Your task to perform on an android device: Check the weather Image 0: 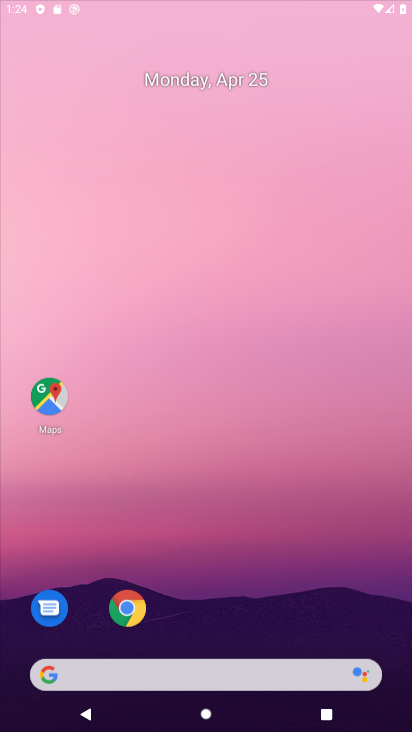
Step 0: drag from (356, 613) to (362, 332)
Your task to perform on an android device: Check the weather Image 1: 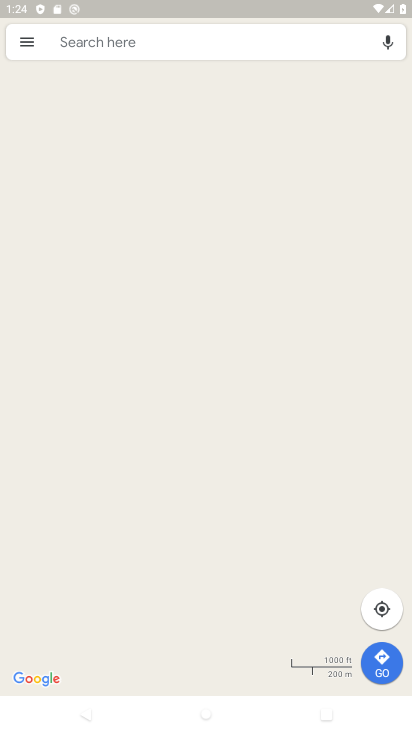
Step 1: press home button
Your task to perform on an android device: Check the weather Image 2: 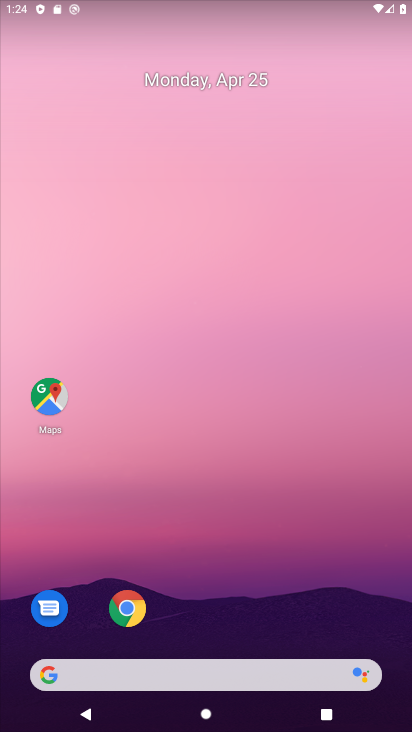
Step 2: click (236, 672)
Your task to perform on an android device: Check the weather Image 3: 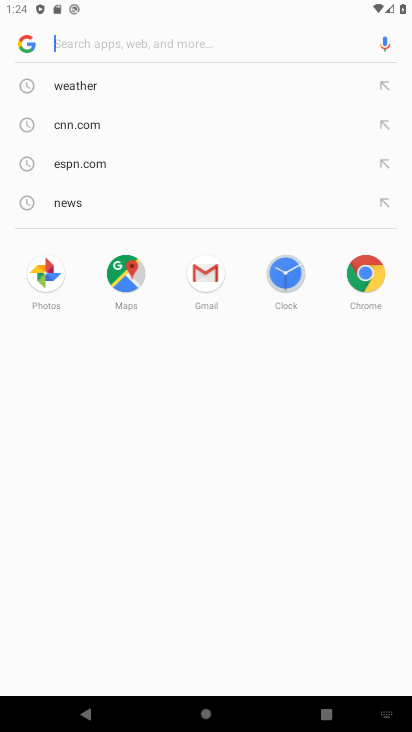
Step 3: click (97, 83)
Your task to perform on an android device: Check the weather Image 4: 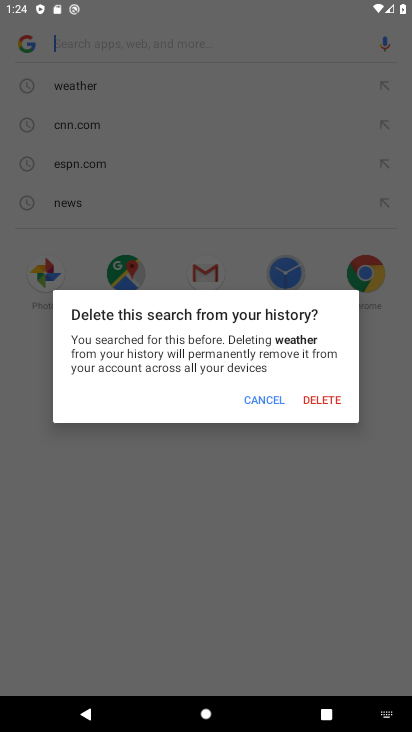
Step 4: click (252, 399)
Your task to perform on an android device: Check the weather Image 5: 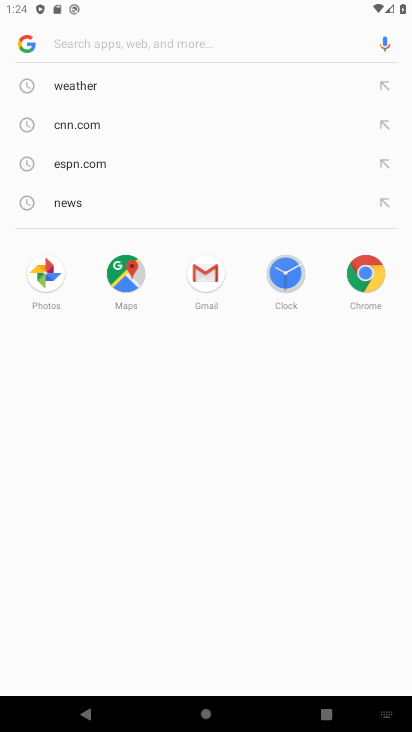
Step 5: click (92, 89)
Your task to perform on an android device: Check the weather Image 6: 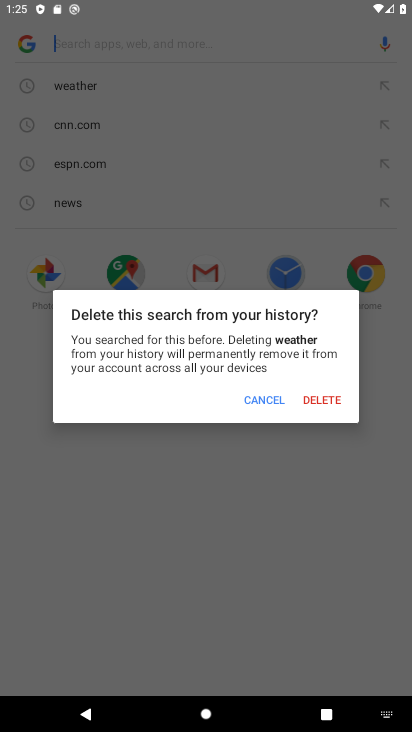
Step 6: click (260, 401)
Your task to perform on an android device: Check the weather Image 7: 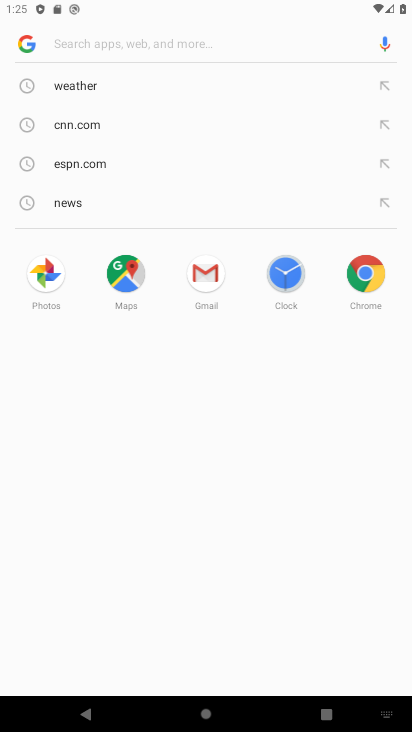
Step 7: click (96, 85)
Your task to perform on an android device: Check the weather Image 8: 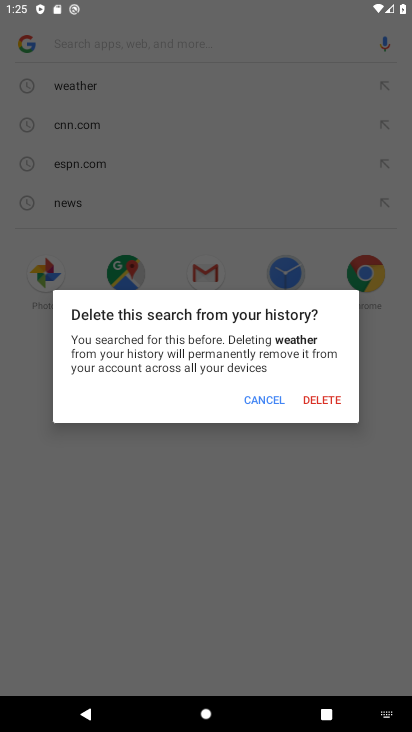
Step 8: click (265, 395)
Your task to perform on an android device: Check the weather Image 9: 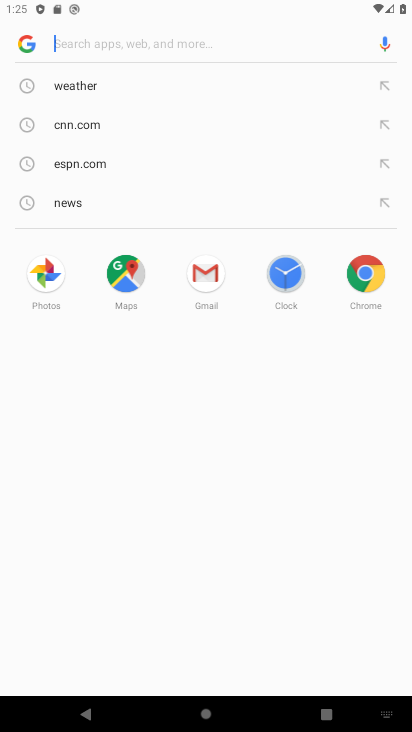
Step 9: click (72, 85)
Your task to perform on an android device: Check the weather Image 10: 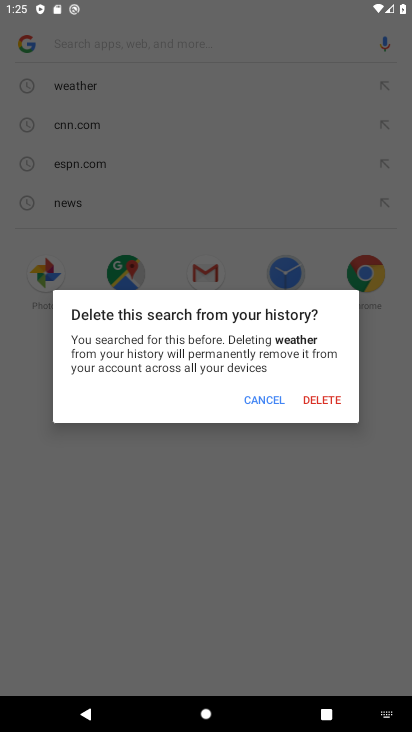
Step 10: click (329, 409)
Your task to perform on an android device: Check the weather Image 11: 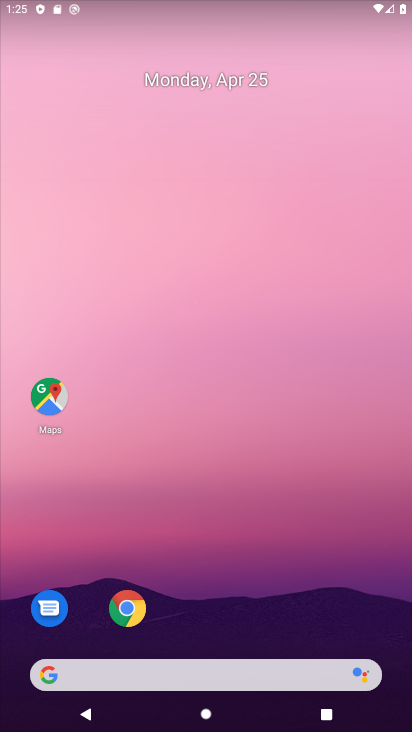
Step 11: click (273, 673)
Your task to perform on an android device: Check the weather Image 12: 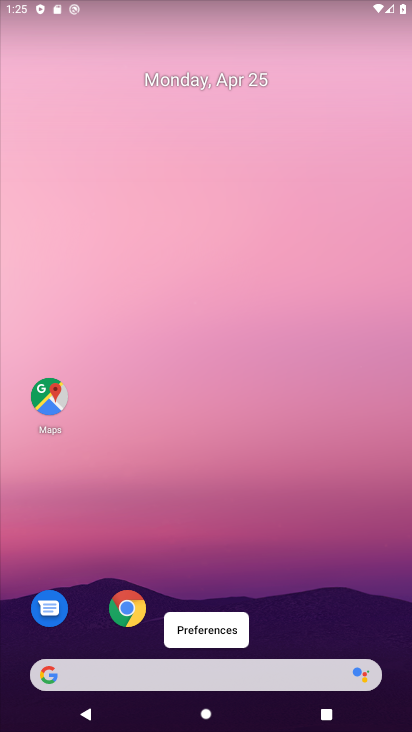
Step 12: click (178, 672)
Your task to perform on an android device: Check the weather Image 13: 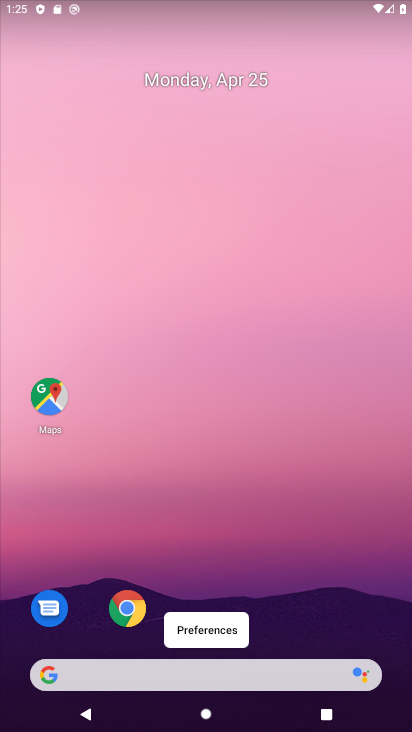
Step 13: click (264, 664)
Your task to perform on an android device: Check the weather Image 14: 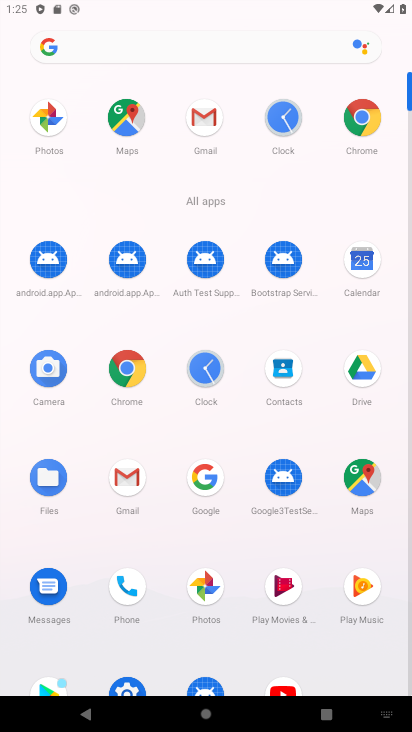
Step 14: task complete